Your task to perform on an android device: clear all cookies in the chrome app Image 0: 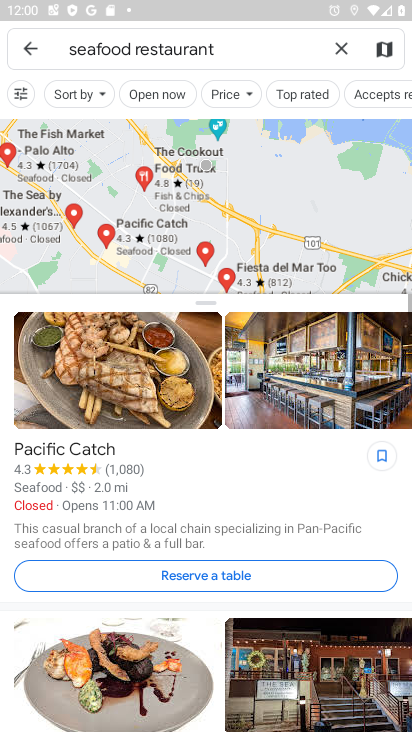
Step 0: drag from (137, 624) to (409, 265)
Your task to perform on an android device: clear all cookies in the chrome app Image 1: 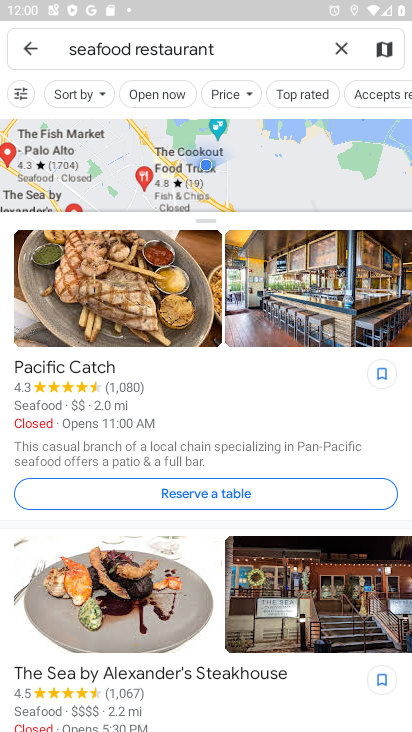
Step 1: press home button
Your task to perform on an android device: clear all cookies in the chrome app Image 2: 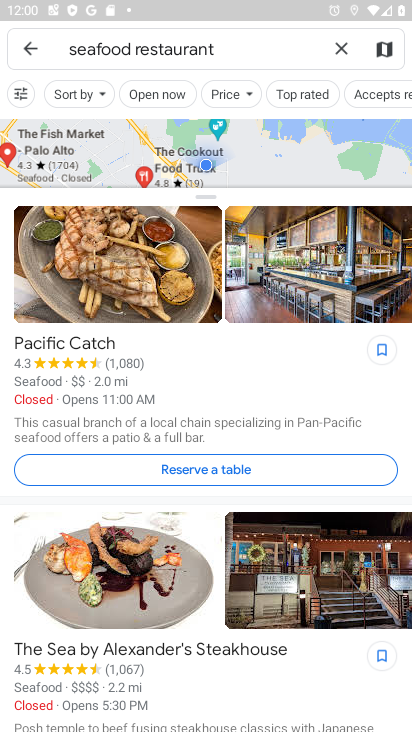
Step 2: drag from (409, 265) to (392, 710)
Your task to perform on an android device: clear all cookies in the chrome app Image 3: 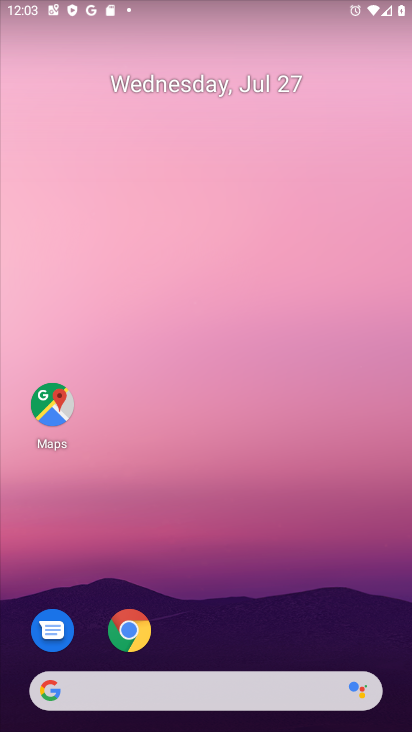
Step 3: click (125, 629)
Your task to perform on an android device: clear all cookies in the chrome app Image 4: 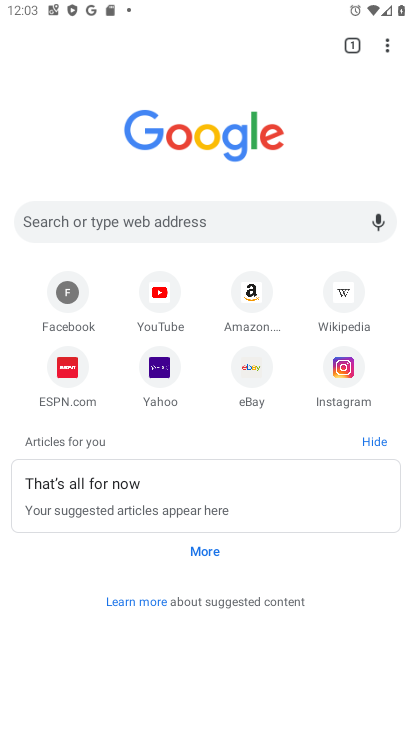
Step 4: click (378, 45)
Your task to perform on an android device: clear all cookies in the chrome app Image 5: 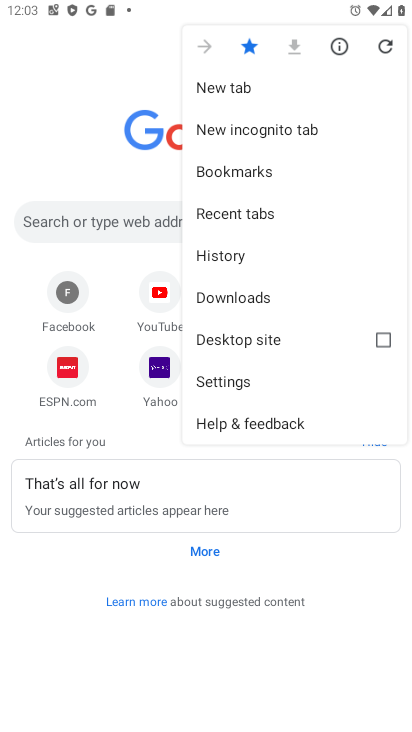
Step 5: click (237, 262)
Your task to perform on an android device: clear all cookies in the chrome app Image 6: 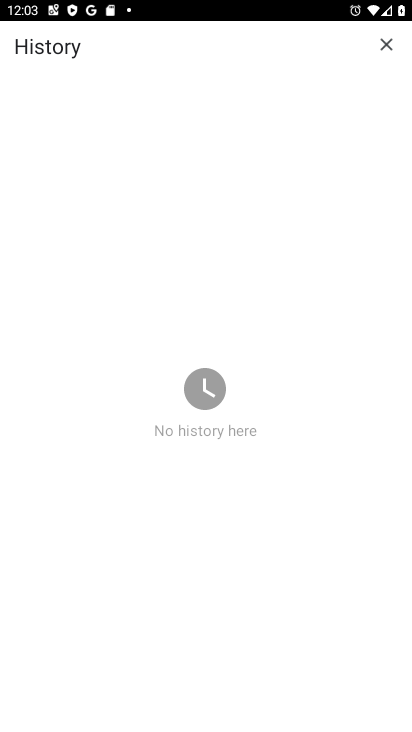
Step 6: task complete